Your task to perform on an android device: Open maps Image 0: 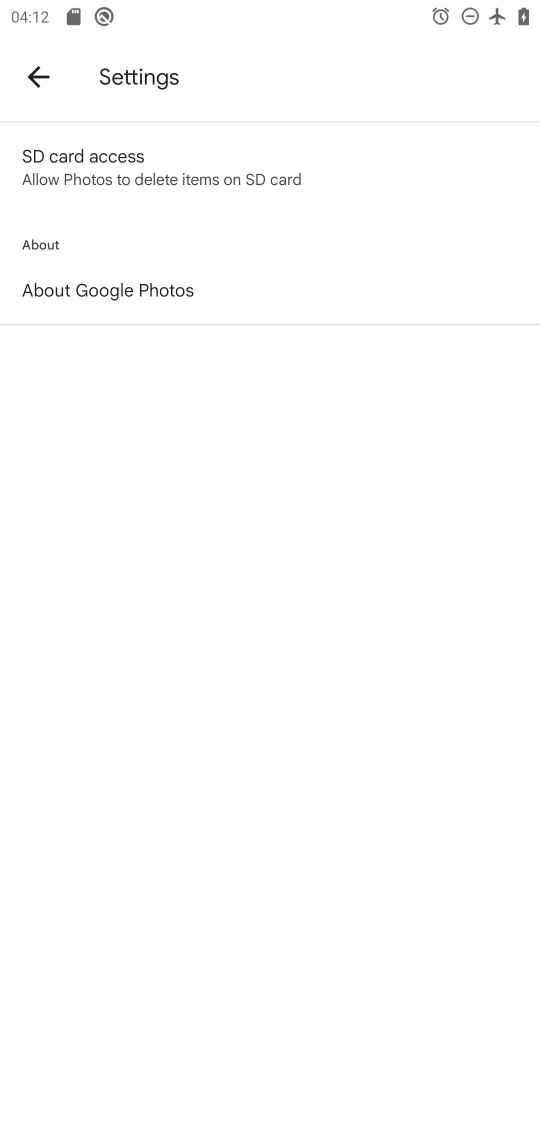
Step 0: press home button
Your task to perform on an android device: Open maps Image 1: 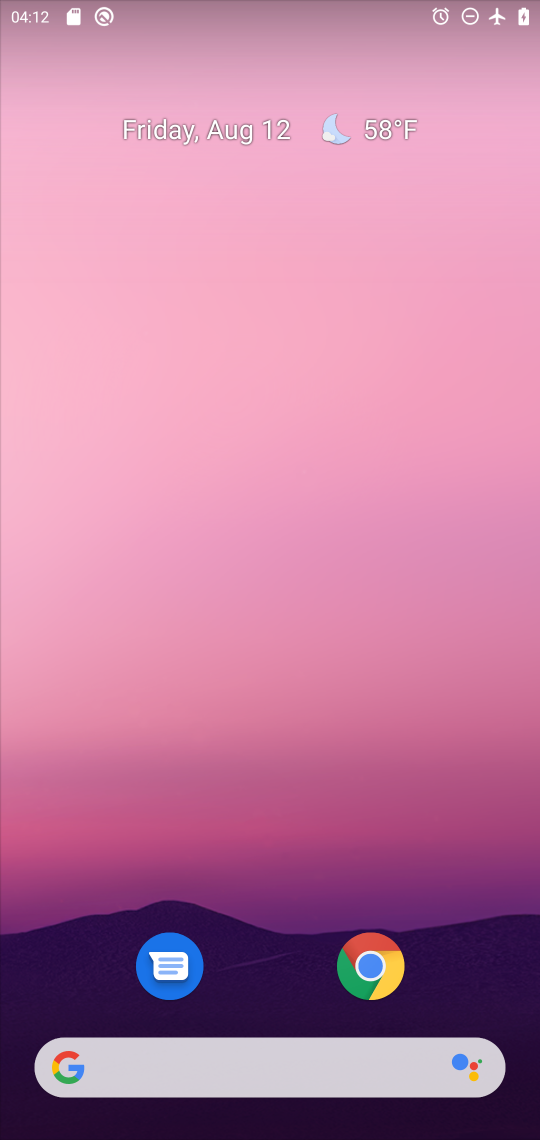
Step 1: drag from (305, 829) to (355, 158)
Your task to perform on an android device: Open maps Image 2: 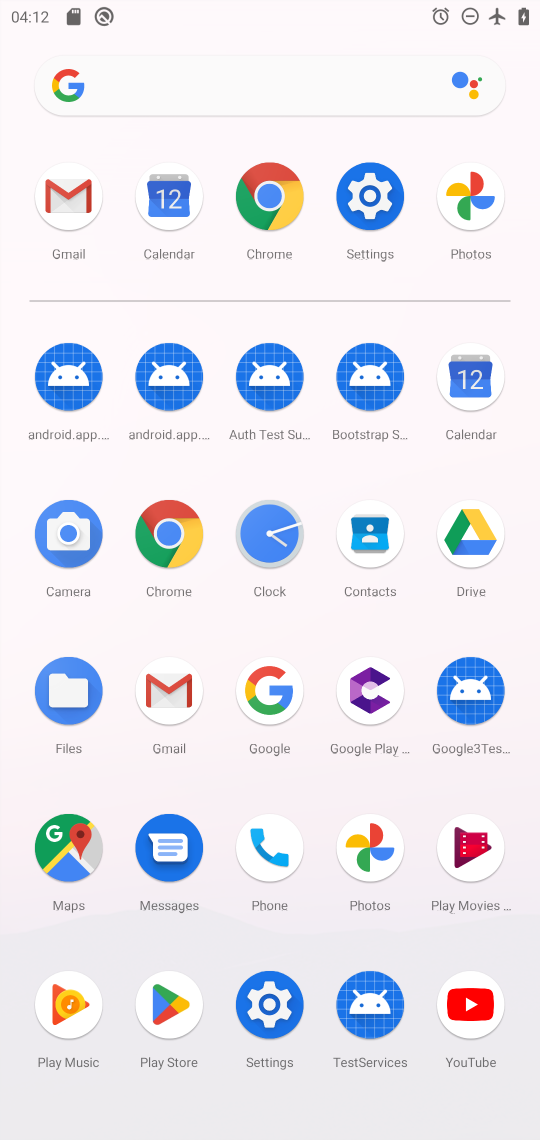
Step 2: click (67, 846)
Your task to perform on an android device: Open maps Image 3: 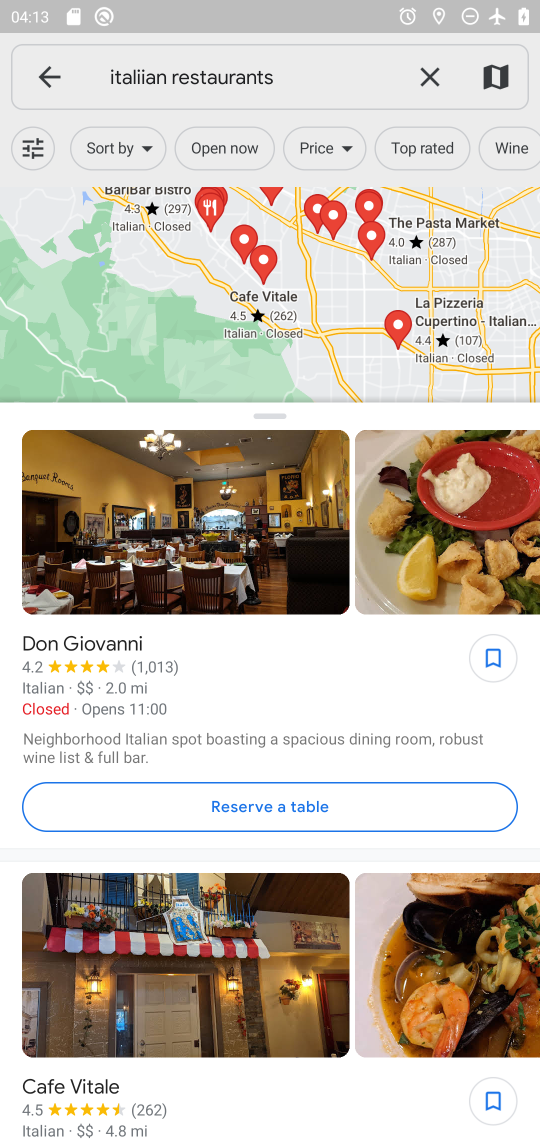
Step 3: task complete